Your task to perform on an android device: Set the phone to "Do not disturb". Image 0: 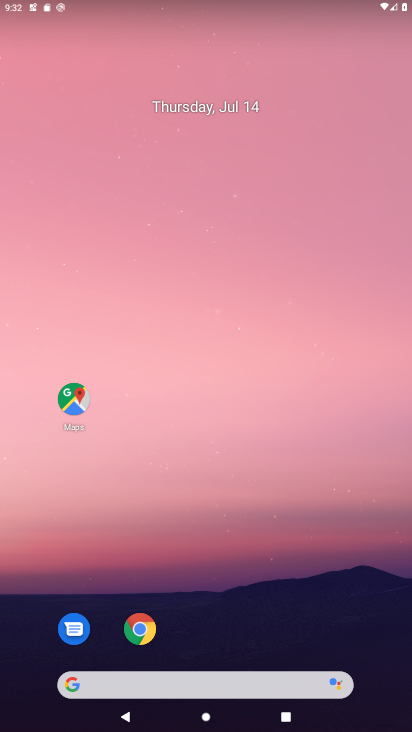
Step 0: drag from (184, 10) to (116, 697)
Your task to perform on an android device: Set the phone to "Do not disturb". Image 1: 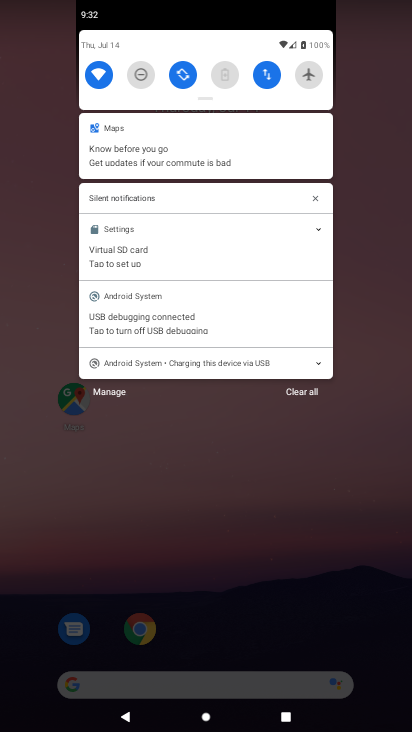
Step 1: click (140, 69)
Your task to perform on an android device: Set the phone to "Do not disturb". Image 2: 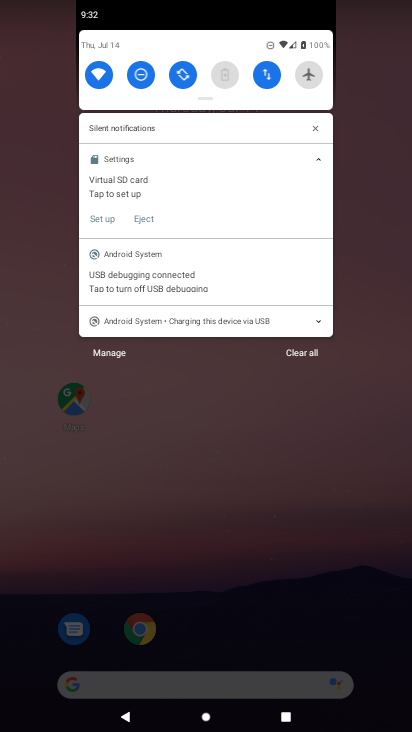
Step 2: task complete